Your task to perform on an android device: Go to calendar. Show me events next week Image 0: 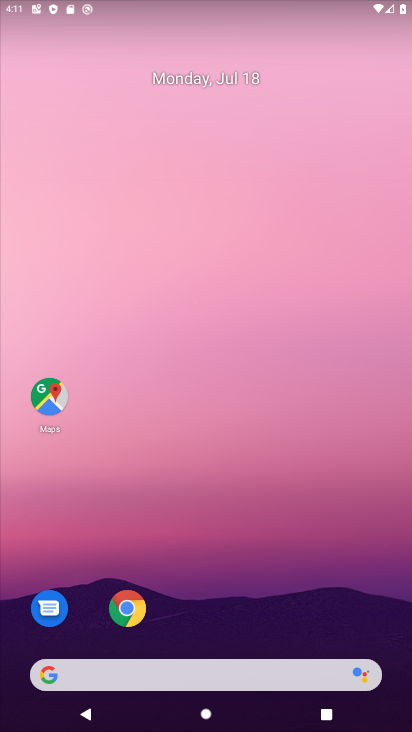
Step 0: drag from (266, 477) to (411, 0)
Your task to perform on an android device: Go to calendar. Show me events next week Image 1: 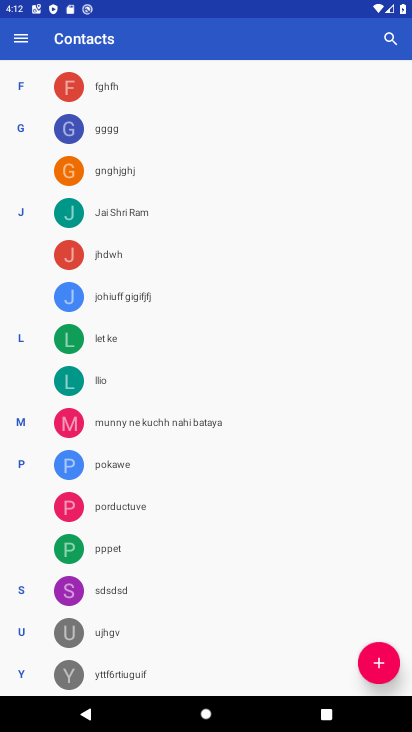
Step 1: press home button
Your task to perform on an android device: Go to calendar. Show me events next week Image 2: 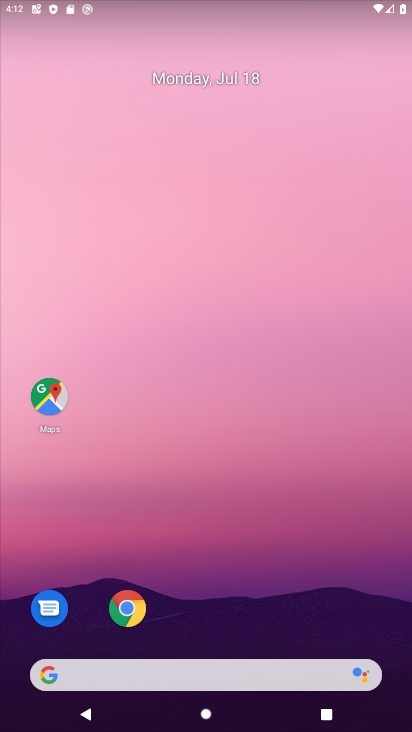
Step 2: drag from (248, 590) to (184, 96)
Your task to perform on an android device: Go to calendar. Show me events next week Image 3: 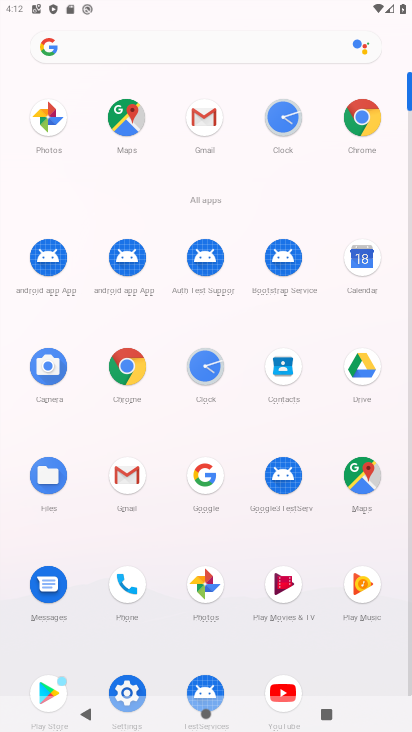
Step 3: click (360, 272)
Your task to perform on an android device: Go to calendar. Show me events next week Image 4: 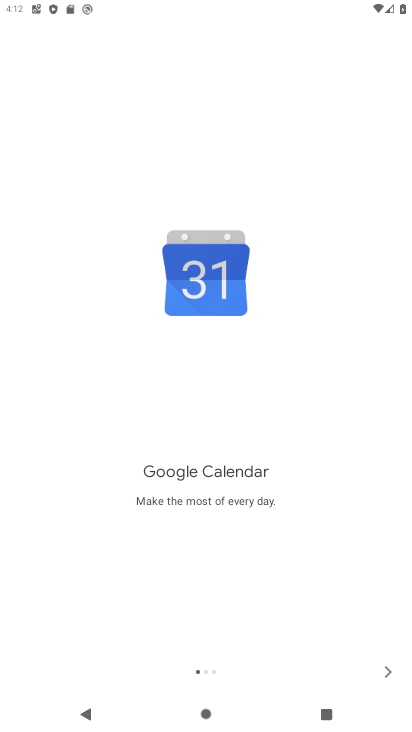
Step 4: click (389, 664)
Your task to perform on an android device: Go to calendar. Show me events next week Image 5: 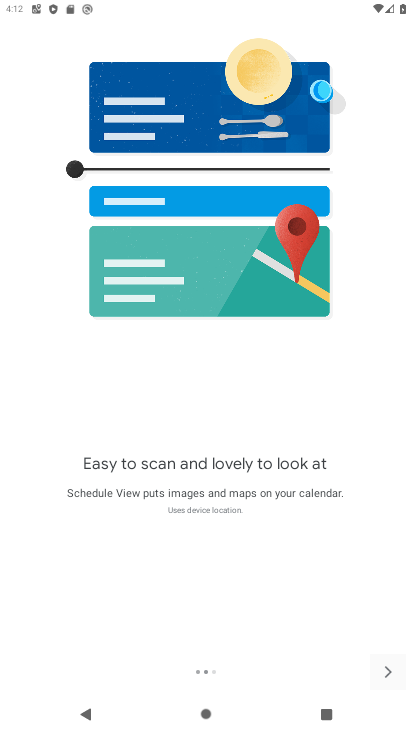
Step 5: click (389, 664)
Your task to perform on an android device: Go to calendar. Show me events next week Image 6: 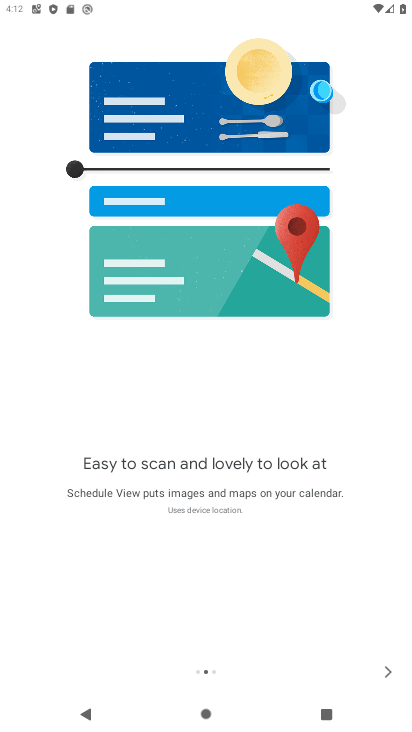
Step 6: click (389, 664)
Your task to perform on an android device: Go to calendar. Show me events next week Image 7: 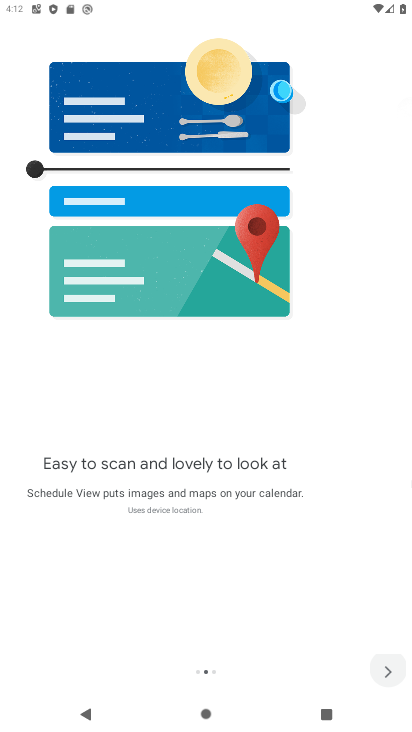
Step 7: click (389, 664)
Your task to perform on an android device: Go to calendar. Show me events next week Image 8: 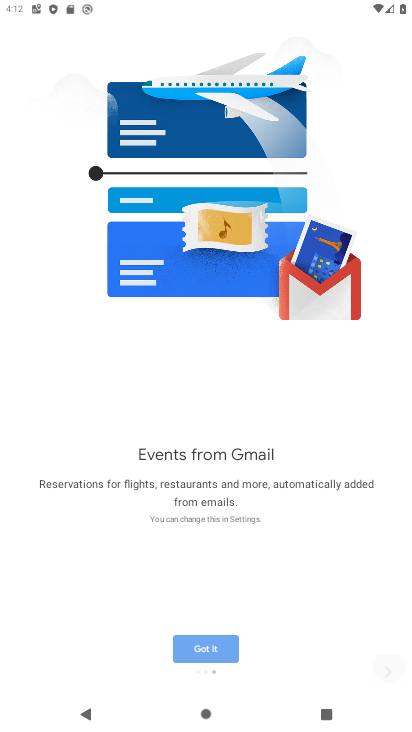
Step 8: click (389, 664)
Your task to perform on an android device: Go to calendar. Show me events next week Image 9: 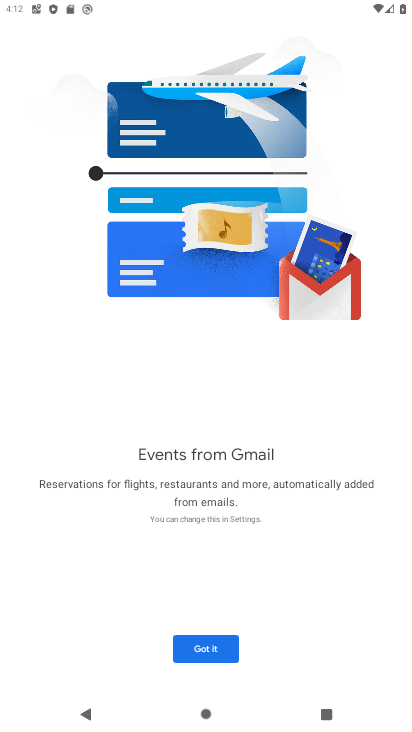
Step 9: click (188, 636)
Your task to perform on an android device: Go to calendar. Show me events next week Image 10: 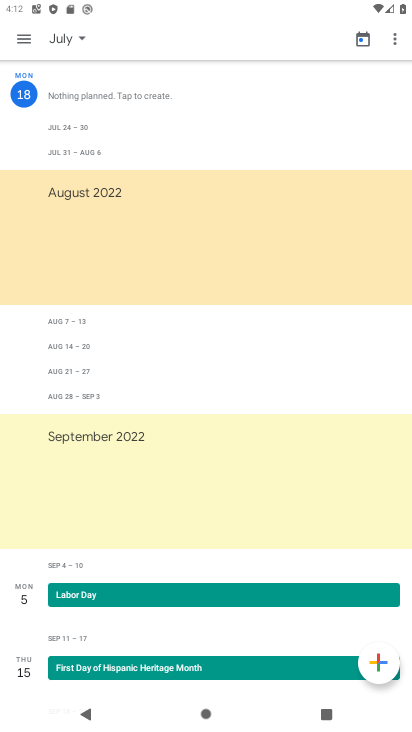
Step 10: click (27, 44)
Your task to perform on an android device: Go to calendar. Show me events next week Image 11: 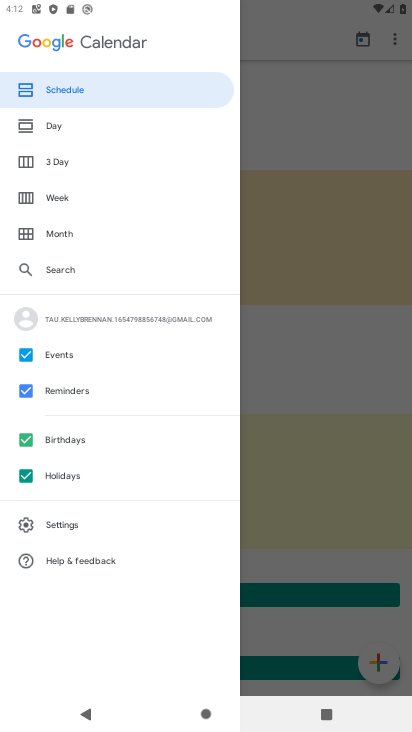
Step 11: click (68, 196)
Your task to perform on an android device: Go to calendar. Show me events next week Image 12: 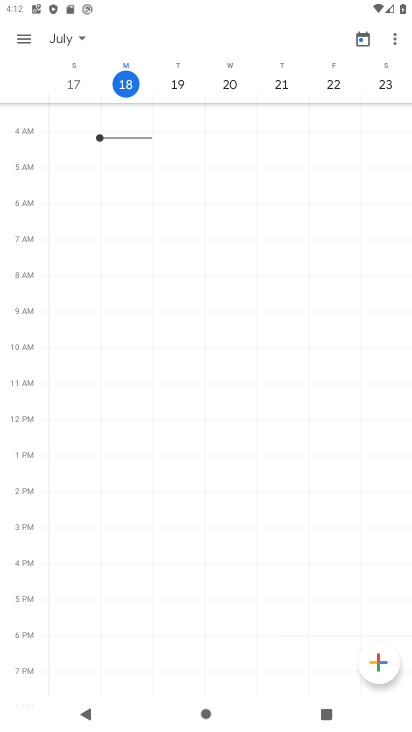
Step 12: click (72, 34)
Your task to perform on an android device: Go to calendar. Show me events next week Image 13: 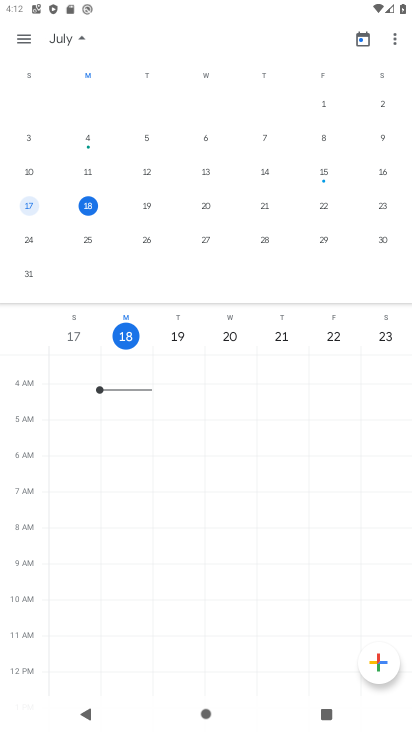
Step 13: click (143, 240)
Your task to perform on an android device: Go to calendar. Show me events next week Image 14: 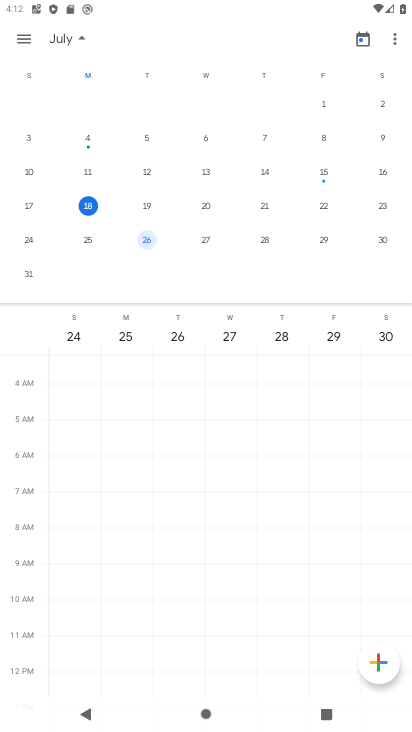
Step 14: task complete